Your task to perform on an android device: allow cookies in the chrome app Image 0: 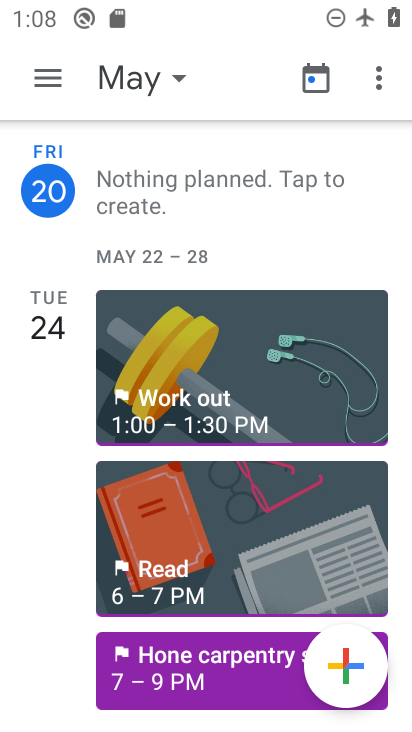
Step 0: press home button
Your task to perform on an android device: allow cookies in the chrome app Image 1: 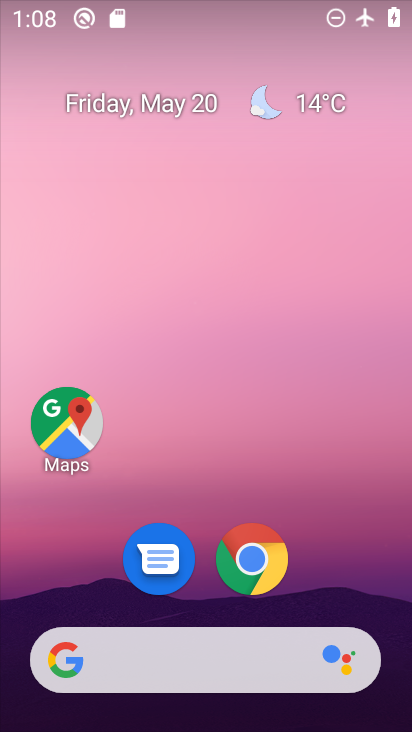
Step 1: click (254, 548)
Your task to perform on an android device: allow cookies in the chrome app Image 2: 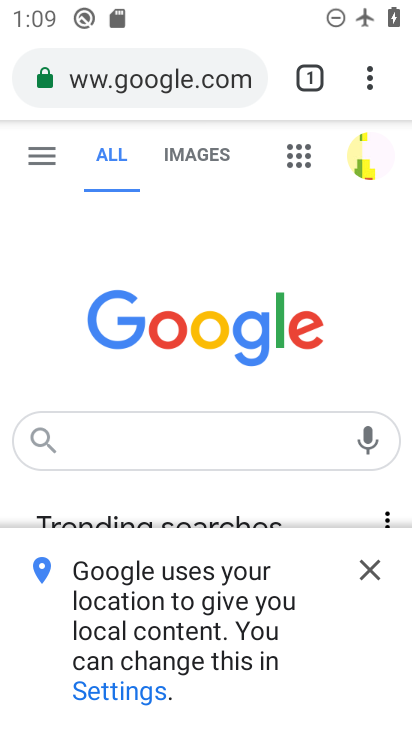
Step 2: click (372, 72)
Your task to perform on an android device: allow cookies in the chrome app Image 3: 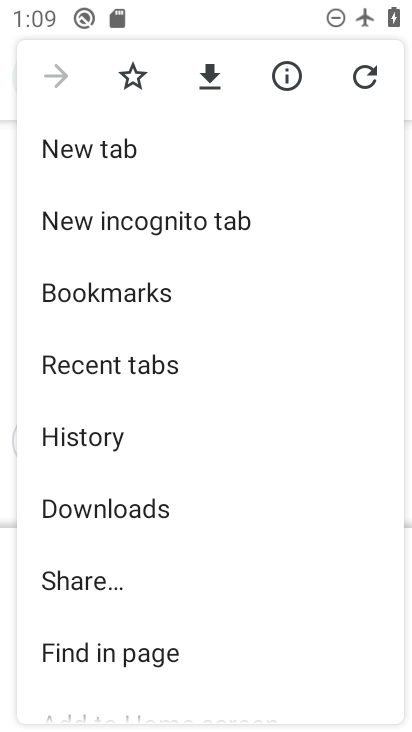
Step 3: drag from (222, 606) to (218, 411)
Your task to perform on an android device: allow cookies in the chrome app Image 4: 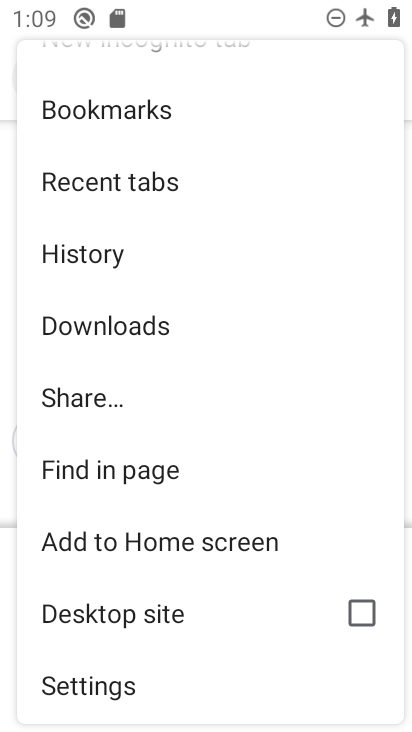
Step 4: click (210, 690)
Your task to perform on an android device: allow cookies in the chrome app Image 5: 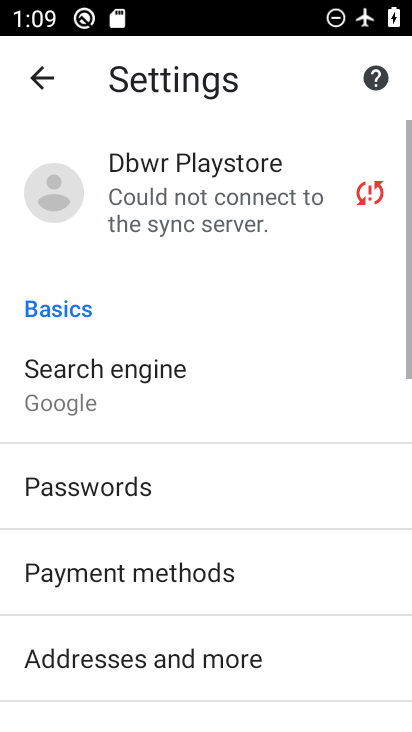
Step 5: drag from (210, 690) to (224, 321)
Your task to perform on an android device: allow cookies in the chrome app Image 6: 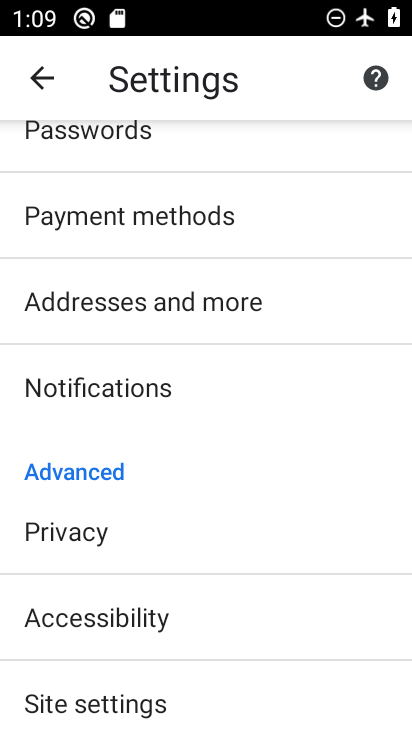
Step 6: click (230, 671)
Your task to perform on an android device: allow cookies in the chrome app Image 7: 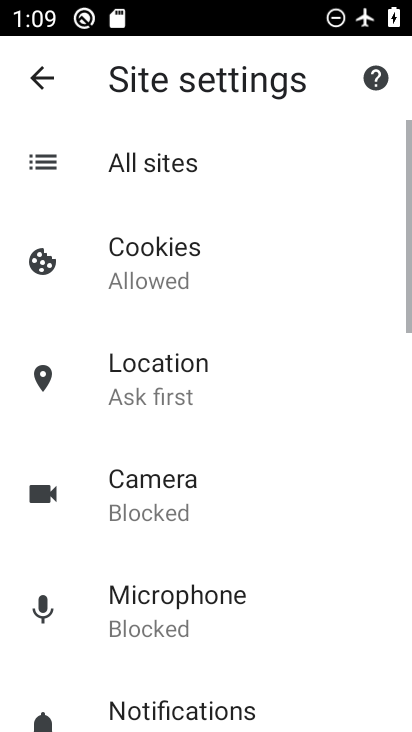
Step 7: task complete